Your task to perform on an android device: Go to Amazon Image 0: 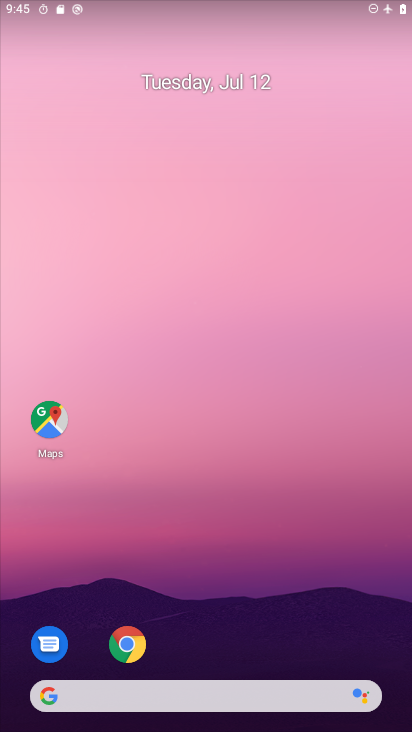
Step 0: click (134, 637)
Your task to perform on an android device: Go to Amazon Image 1: 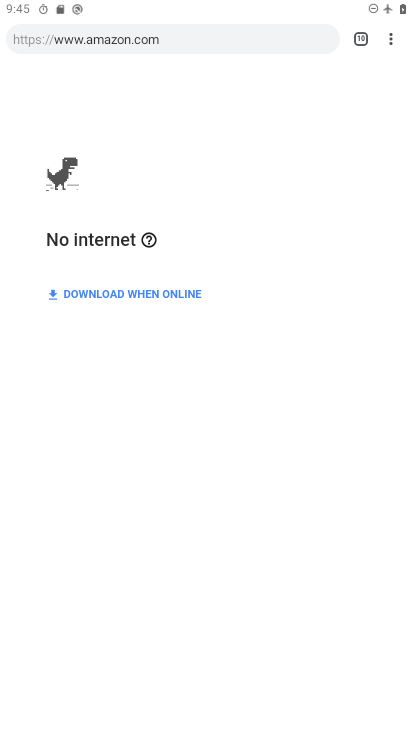
Step 1: task complete